Your task to perform on an android device: Search for Italian restaurants on Maps Image 0: 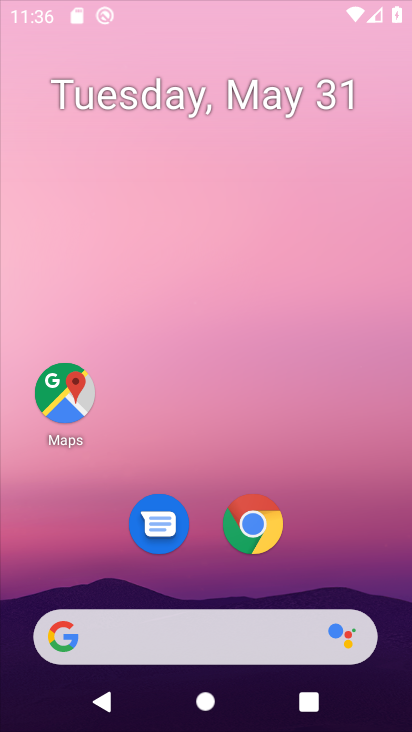
Step 0: click (332, 0)
Your task to perform on an android device: Search for Italian restaurants on Maps Image 1: 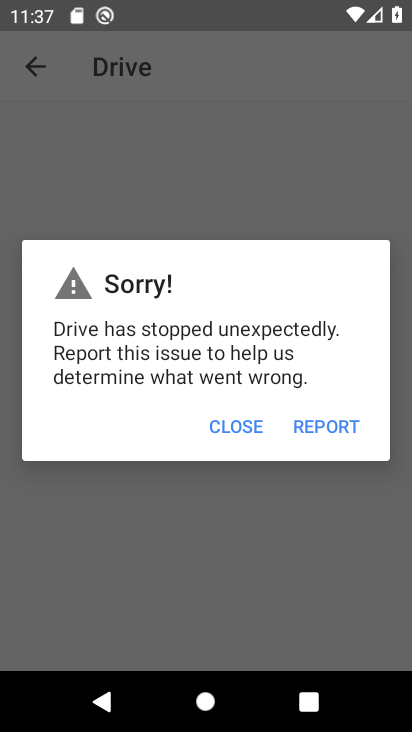
Step 1: press home button
Your task to perform on an android device: Search for Italian restaurants on Maps Image 2: 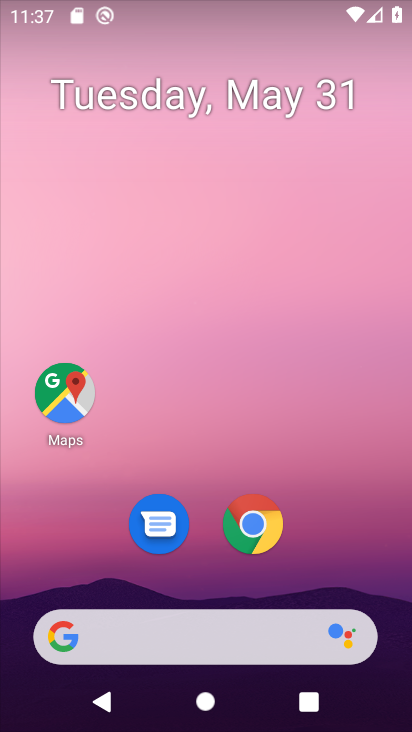
Step 2: click (67, 391)
Your task to perform on an android device: Search for Italian restaurants on Maps Image 3: 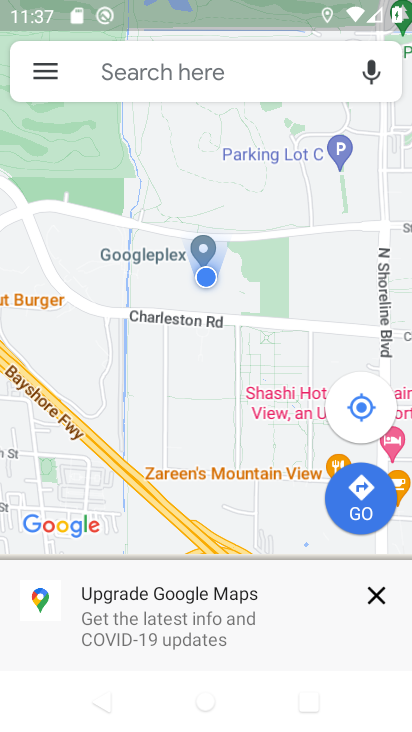
Step 3: click (225, 70)
Your task to perform on an android device: Search for Italian restaurants on Maps Image 4: 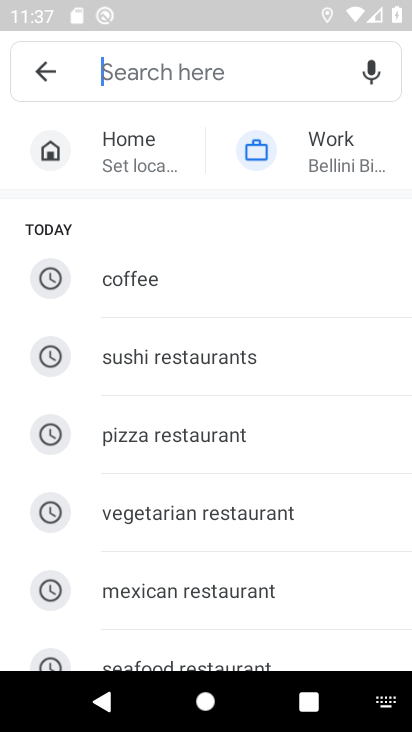
Step 4: drag from (240, 569) to (268, 243)
Your task to perform on an android device: Search for Italian restaurants on Maps Image 5: 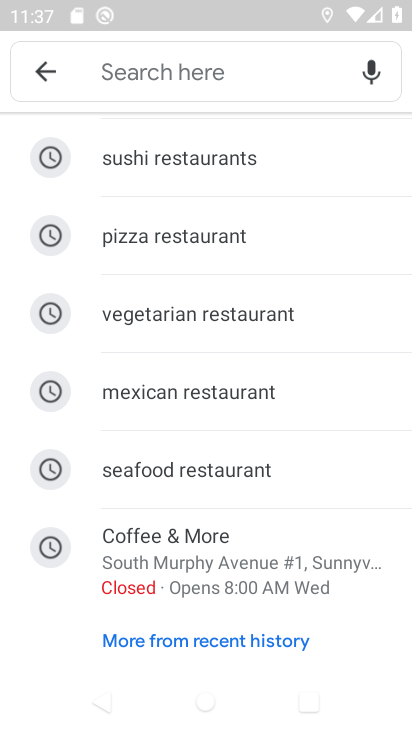
Step 5: drag from (268, 243) to (232, 585)
Your task to perform on an android device: Search for Italian restaurants on Maps Image 6: 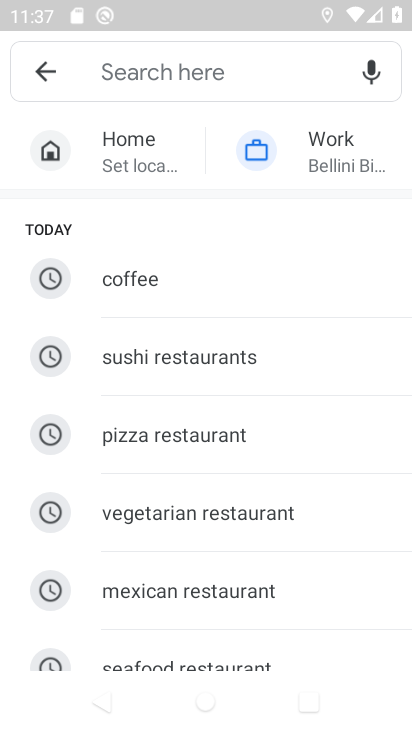
Step 6: click (212, 61)
Your task to perform on an android device: Search for Italian restaurants on Maps Image 7: 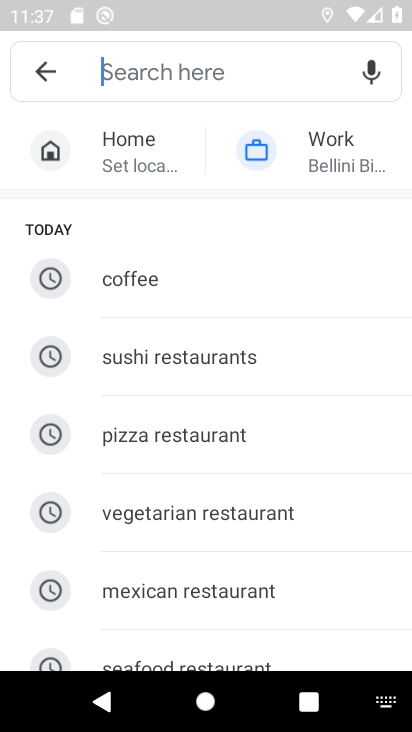
Step 7: type "Italian restaurants"
Your task to perform on an android device: Search for Italian restaurants on Maps Image 8: 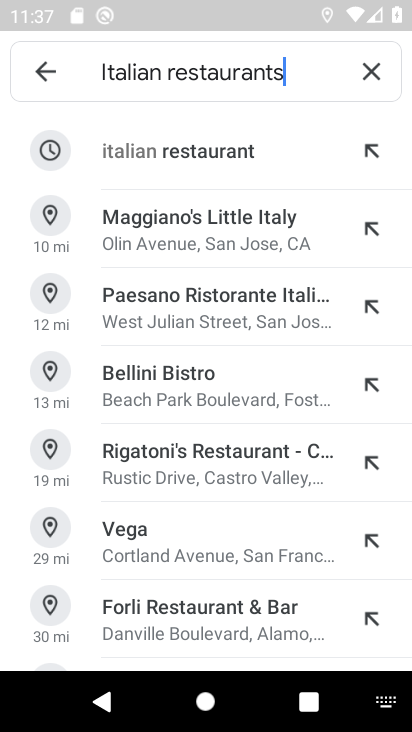
Step 8: click (202, 148)
Your task to perform on an android device: Search for Italian restaurants on Maps Image 9: 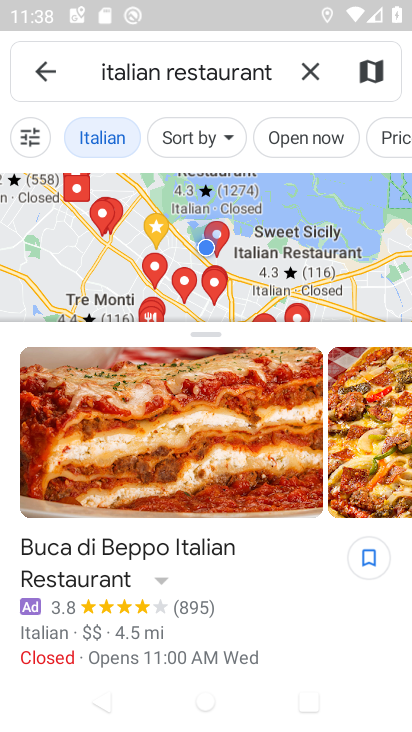
Step 9: task complete